Your task to perform on an android device: change notifications settings Image 0: 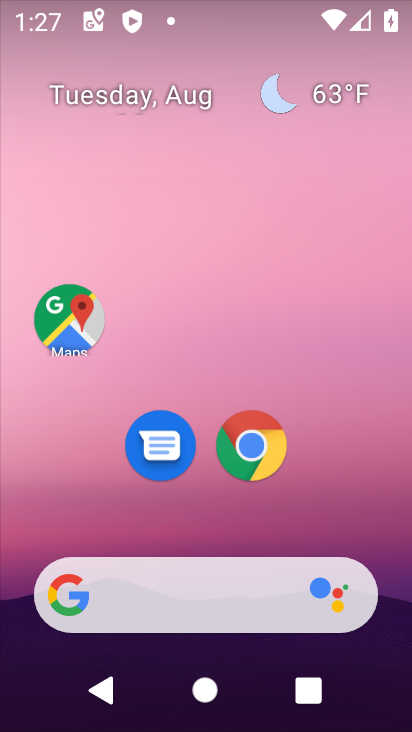
Step 0: press home button
Your task to perform on an android device: change notifications settings Image 1: 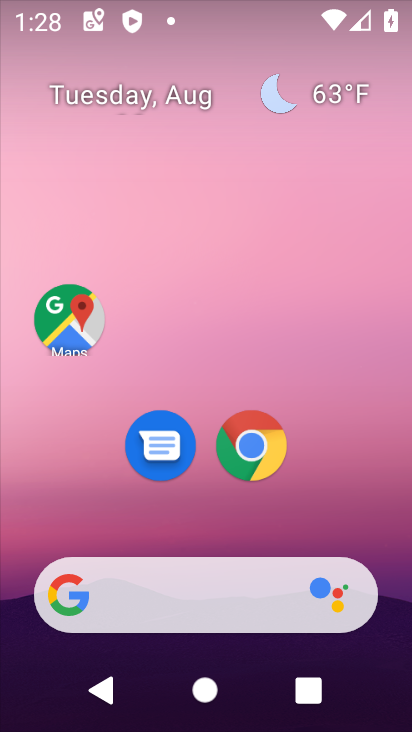
Step 1: drag from (204, 530) to (243, 109)
Your task to perform on an android device: change notifications settings Image 2: 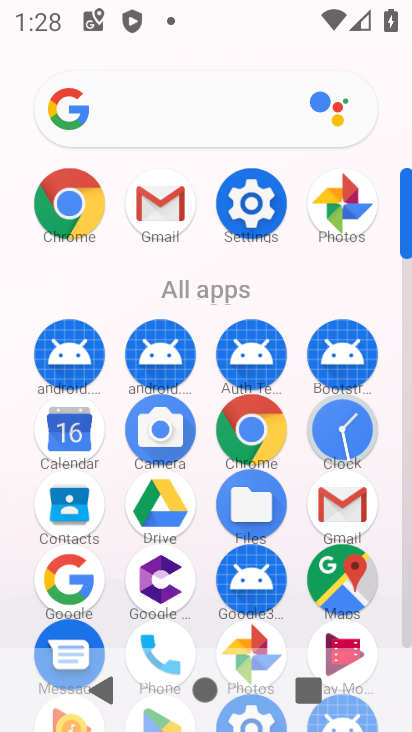
Step 2: click (250, 196)
Your task to perform on an android device: change notifications settings Image 3: 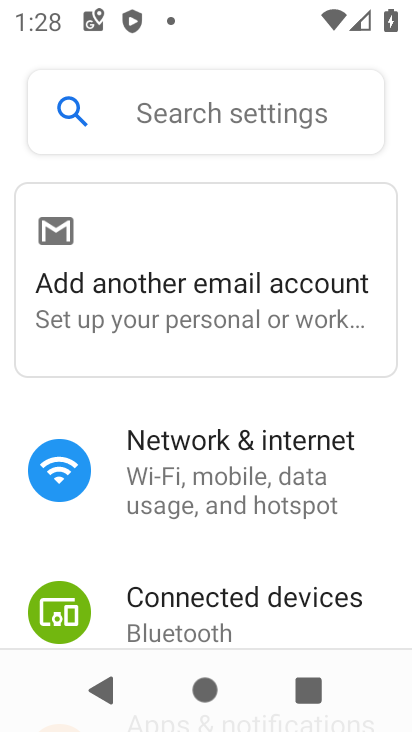
Step 3: drag from (170, 577) to (216, 11)
Your task to perform on an android device: change notifications settings Image 4: 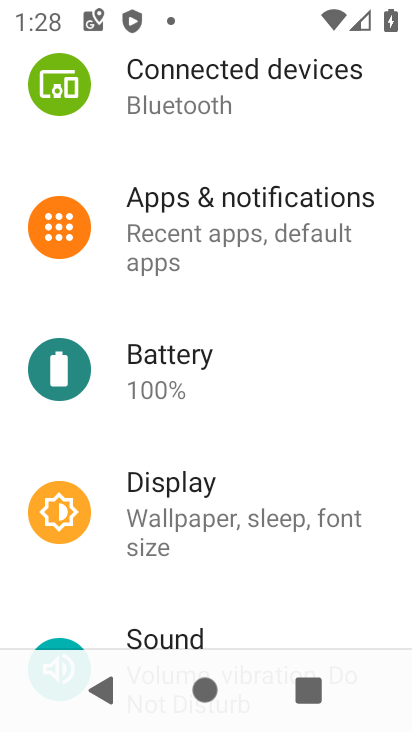
Step 4: click (156, 227)
Your task to perform on an android device: change notifications settings Image 5: 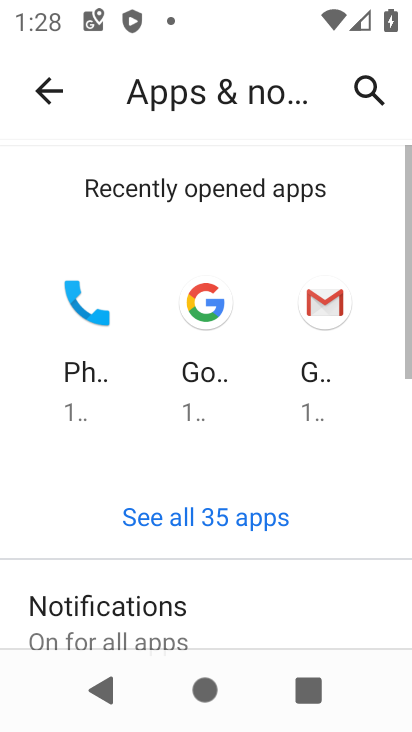
Step 5: click (210, 616)
Your task to perform on an android device: change notifications settings Image 6: 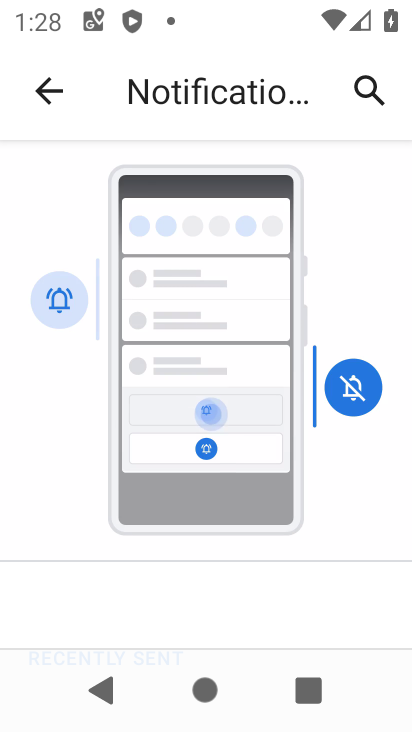
Step 6: drag from (199, 562) to (207, 144)
Your task to perform on an android device: change notifications settings Image 7: 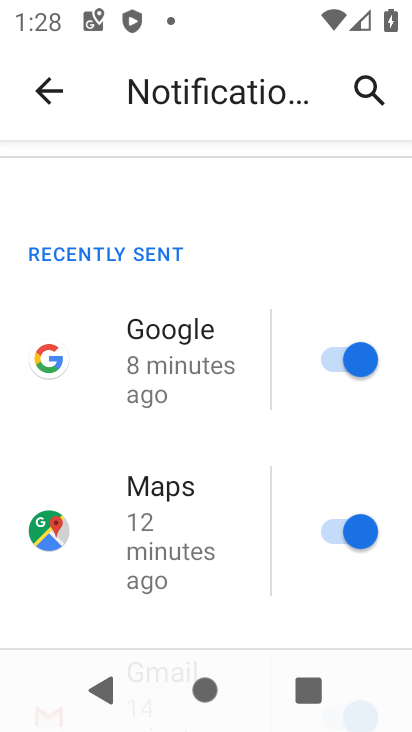
Step 7: drag from (211, 652) to (233, 109)
Your task to perform on an android device: change notifications settings Image 8: 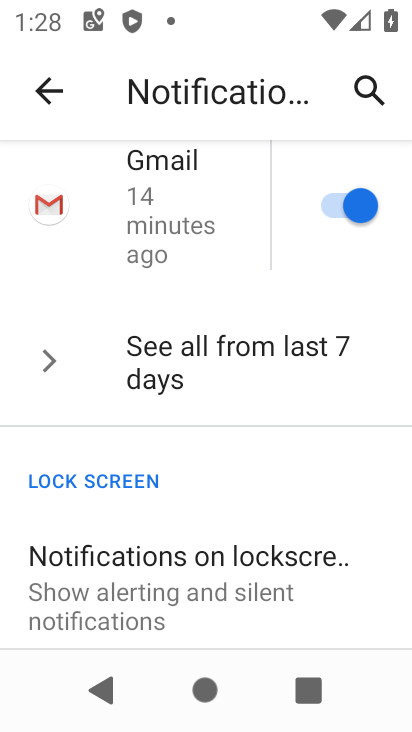
Step 8: drag from (205, 582) to (230, 111)
Your task to perform on an android device: change notifications settings Image 9: 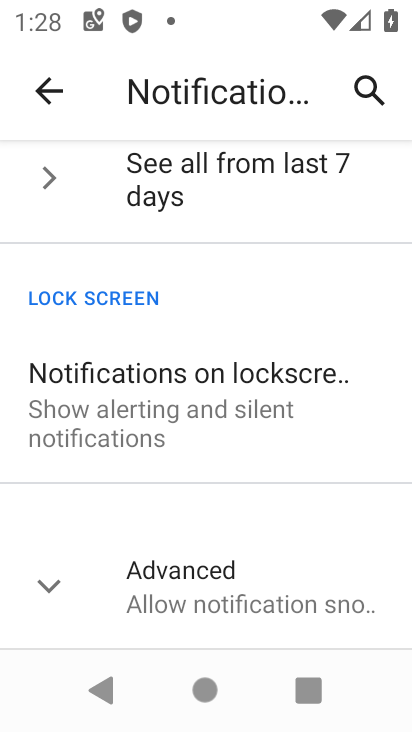
Step 9: click (47, 580)
Your task to perform on an android device: change notifications settings Image 10: 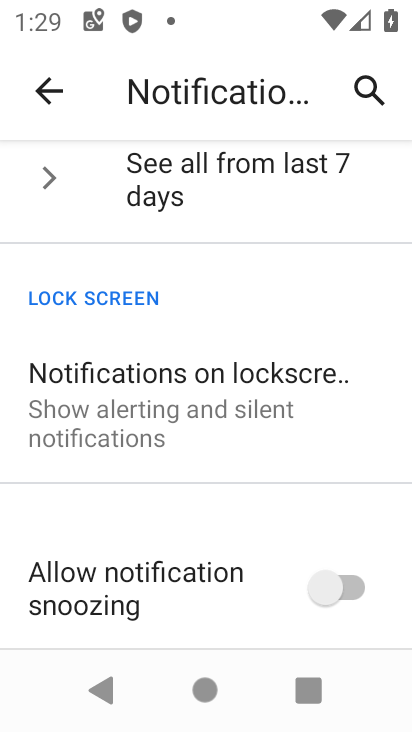
Step 10: task complete